Your task to perform on an android device: Find coffee shops on Maps Image 0: 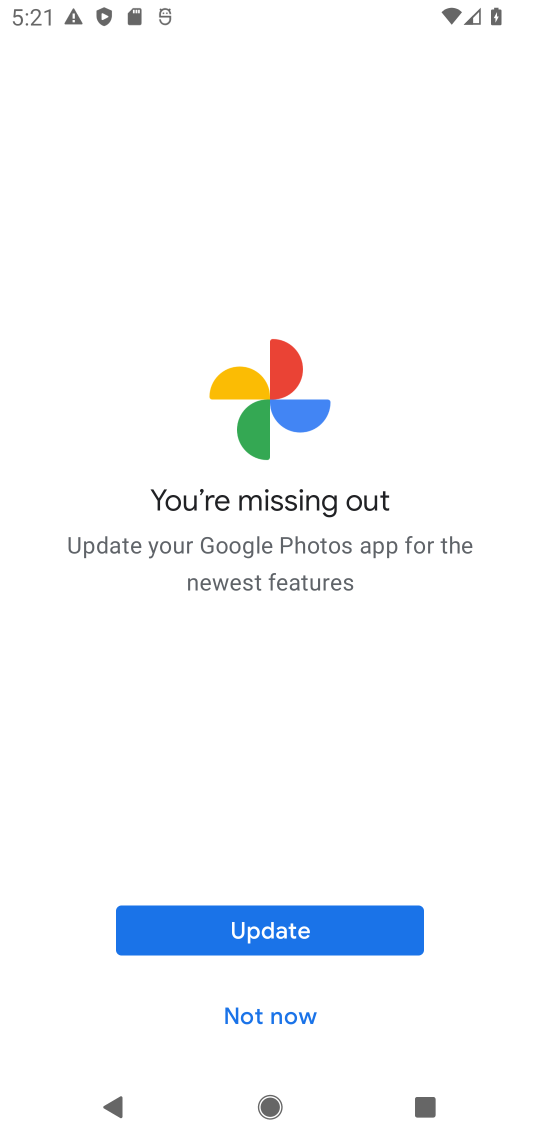
Step 0: press home button
Your task to perform on an android device: Find coffee shops on Maps Image 1: 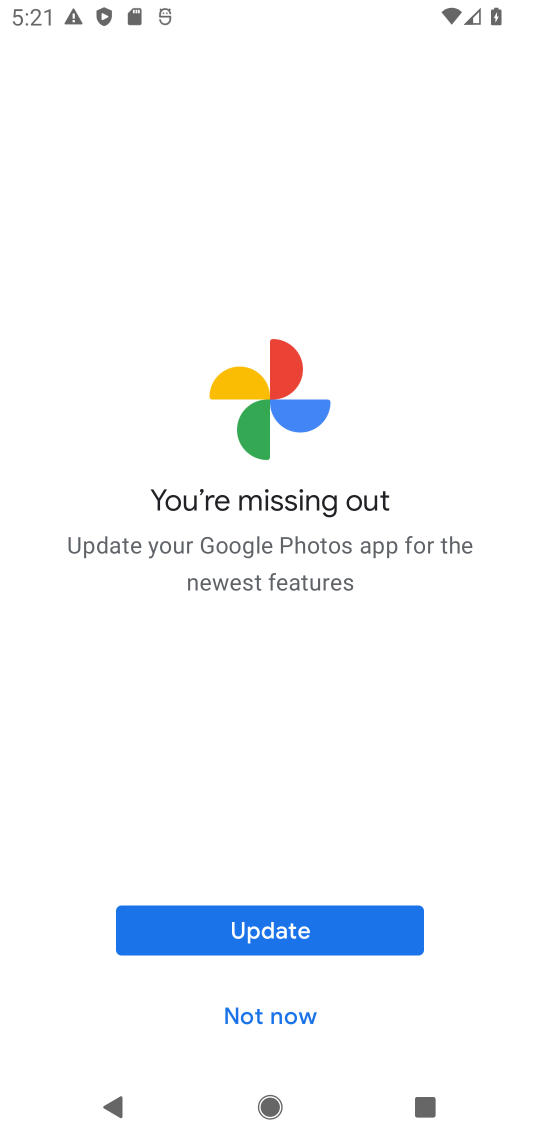
Step 1: press home button
Your task to perform on an android device: Find coffee shops on Maps Image 2: 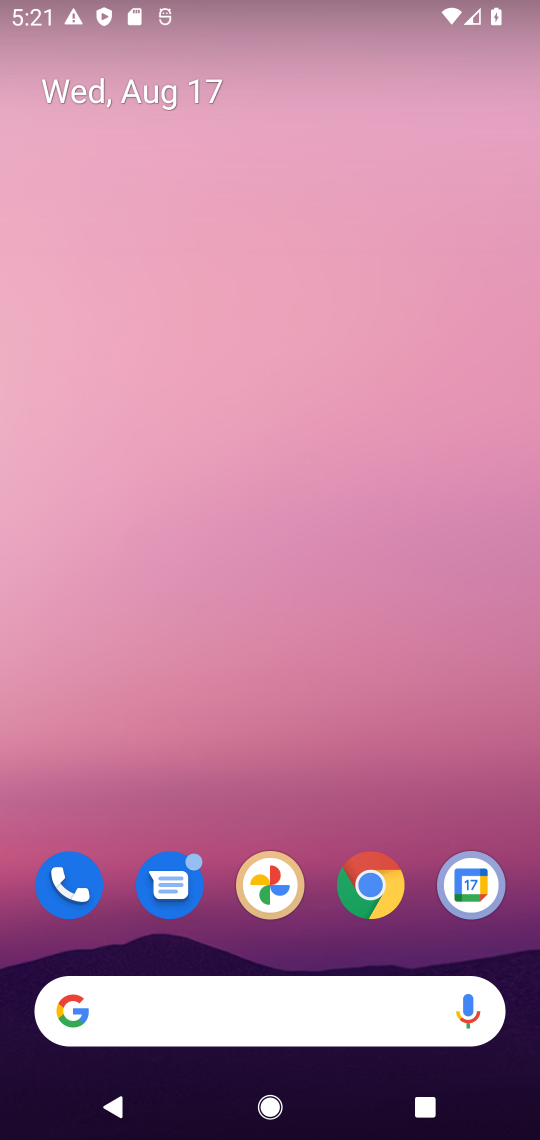
Step 2: drag from (339, 752) to (330, 150)
Your task to perform on an android device: Find coffee shops on Maps Image 3: 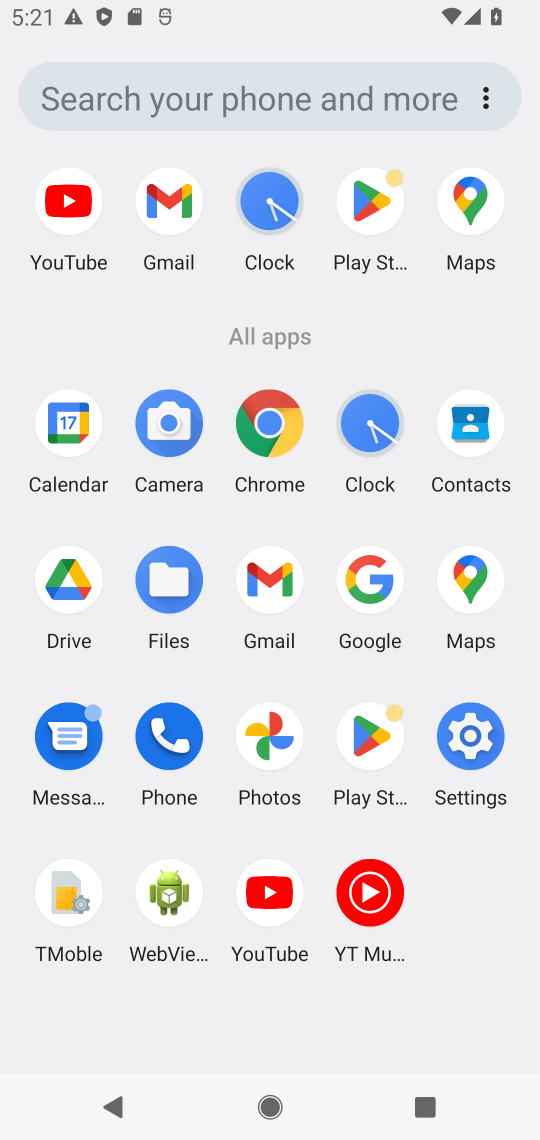
Step 3: click (460, 586)
Your task to perform on an android device: Find coffee shops on Maps Image 4: 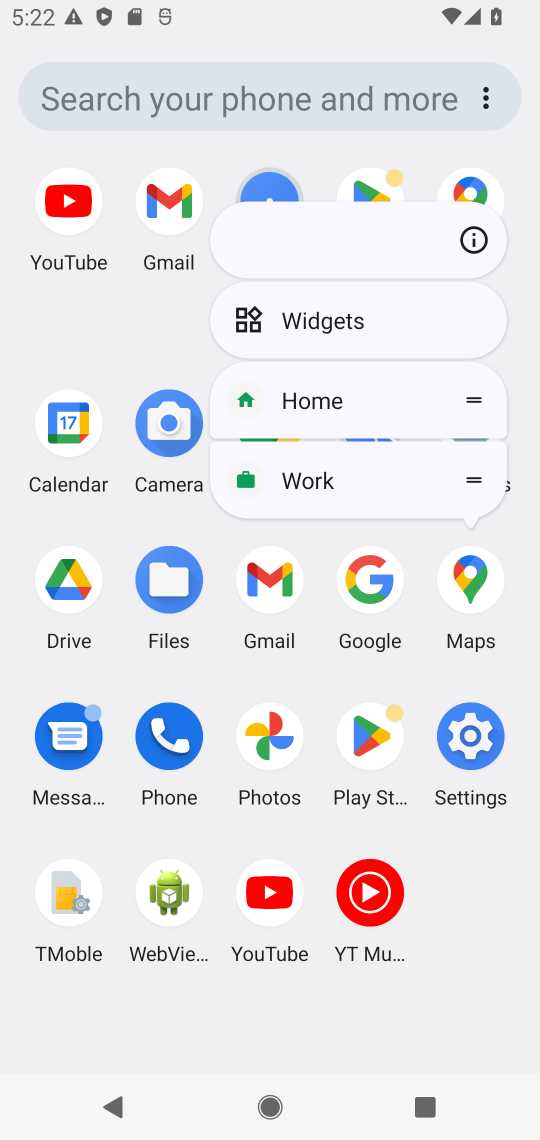
Step 4: click (469, 579)
Your task to perform on an android device: Find coffee shops on Maps Image 5: 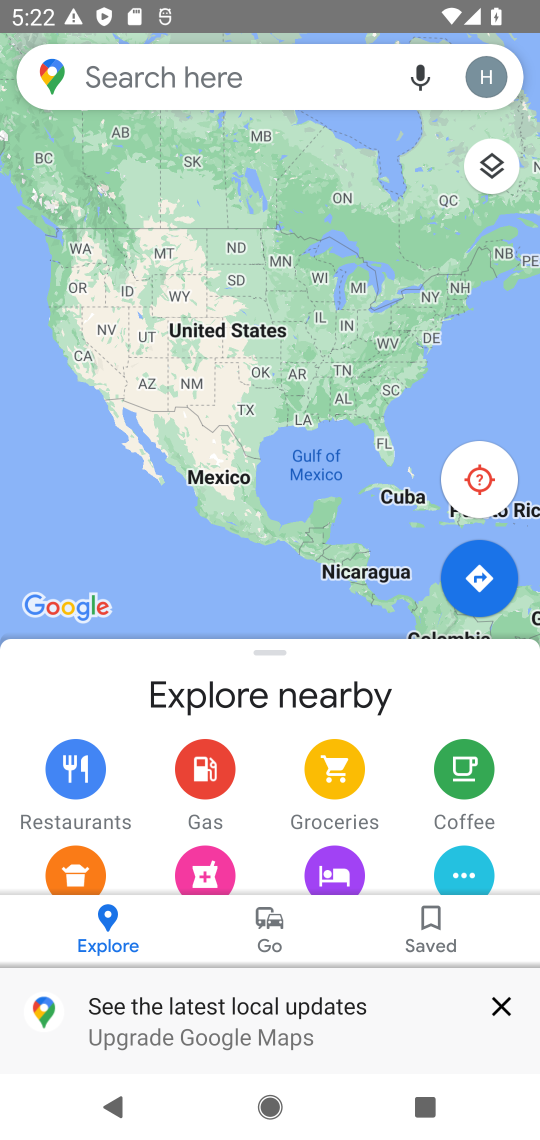
Step 5: click (244, 80)
Your task to perform on an android device: Find coffee shops on Maps Image 6: 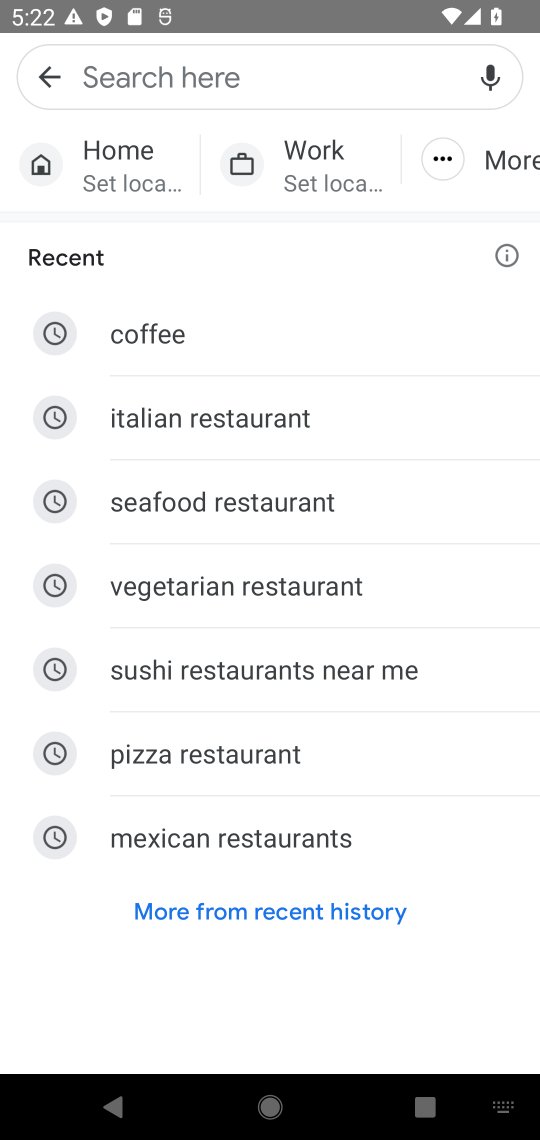
Step 6: type "coffee shops"
Your task to perform on an android device: Find coffee shops on Maps Image 7: 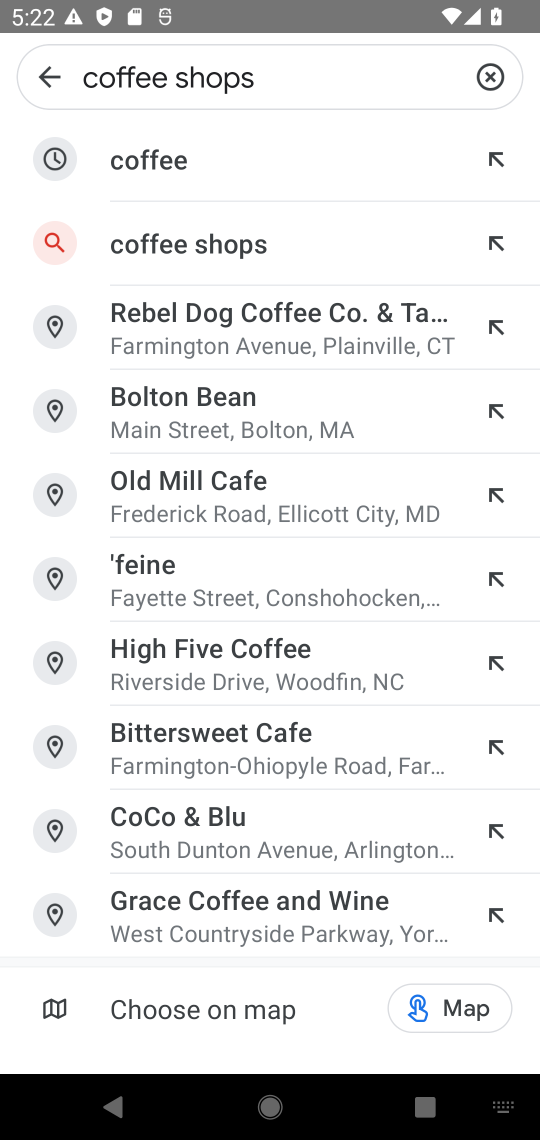
Step 7: click (266, 250)
Your task to perform on an android device: Find coffee shops on Maps Image 8: 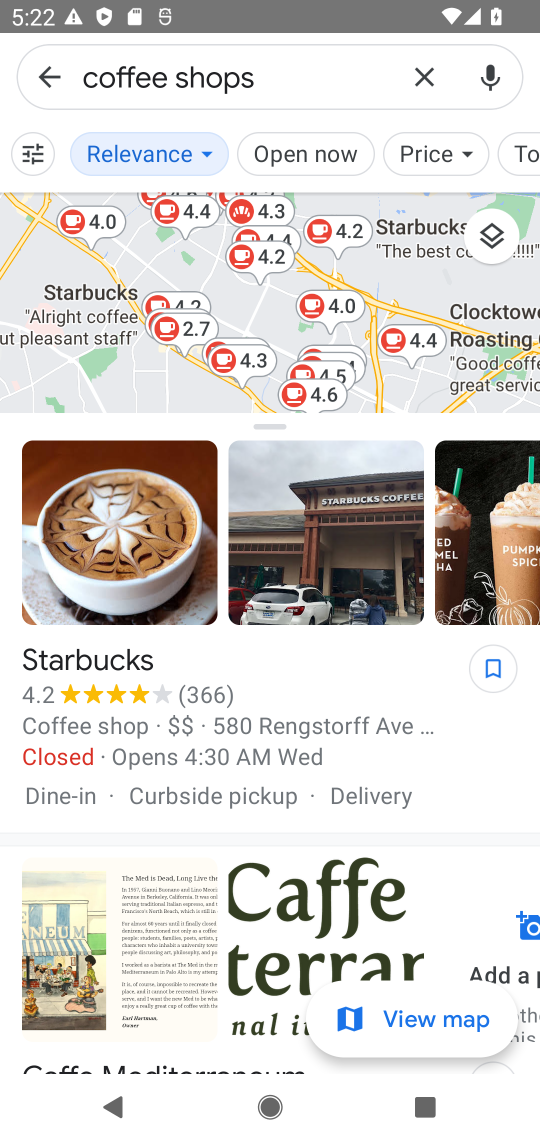
Step 8: task complete